Your task to perform on an android device: Open ESPN.com Image 0: 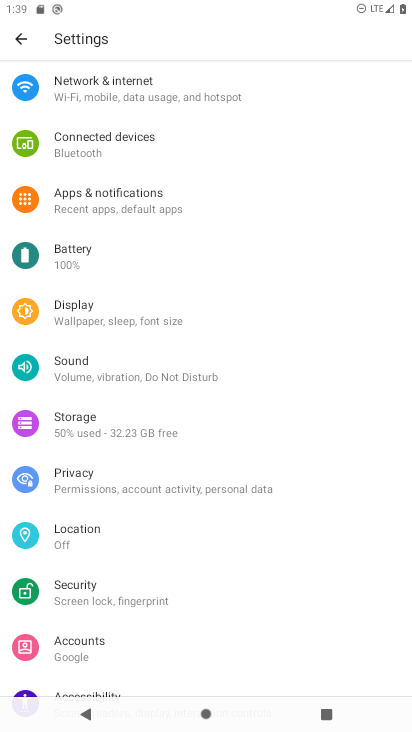
Step 0: press home button
Your task to perform on an android device: Open ESPN.com Image 1: 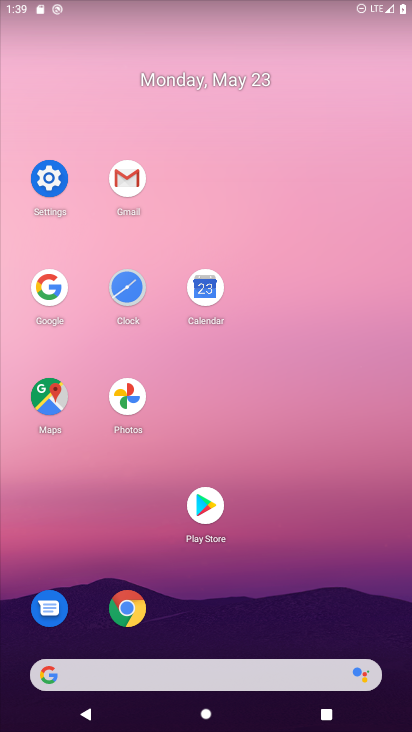
Step 1: click (129, 629)
Your task to perform on an android device: Open ESPN.com Image 2: 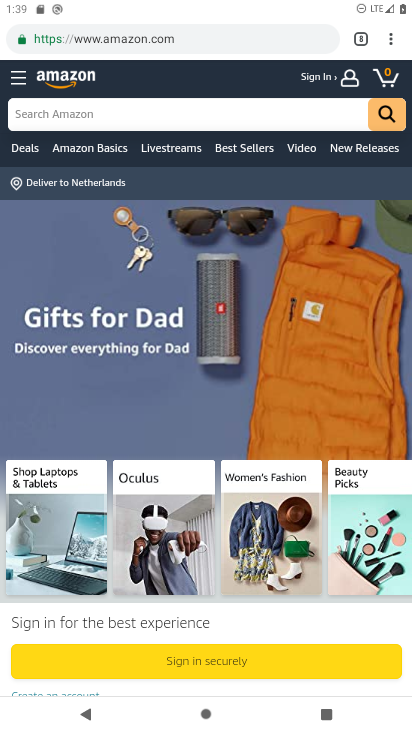
Step 2: click (352, 44)
Your task to perform on an android device: Open ESPN.com Image 3: 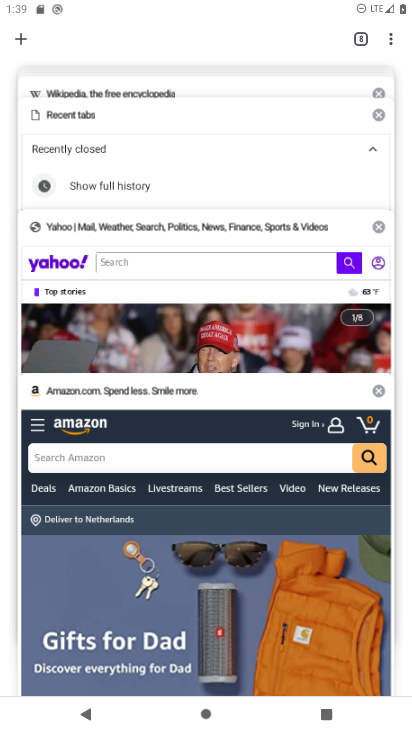
Step 3: drag from (210, 267) to (201, 584)
Your task to perform on an android device: Open ESPN.com Image 4: 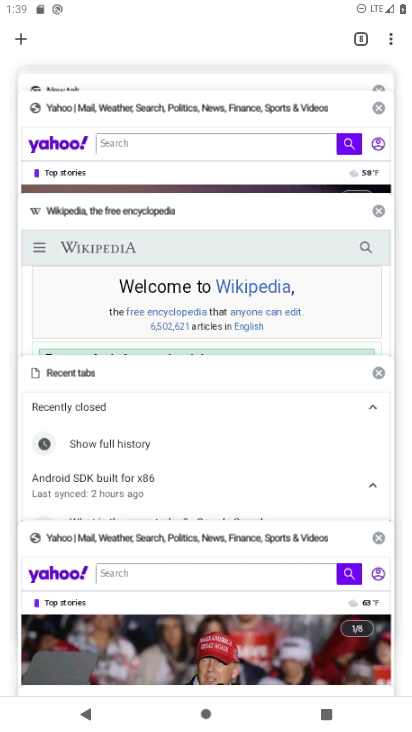
Step 4: drag from (196, 222) to (194, 532)
Your task to perform on an android device: Open ESPN.com Image 5: 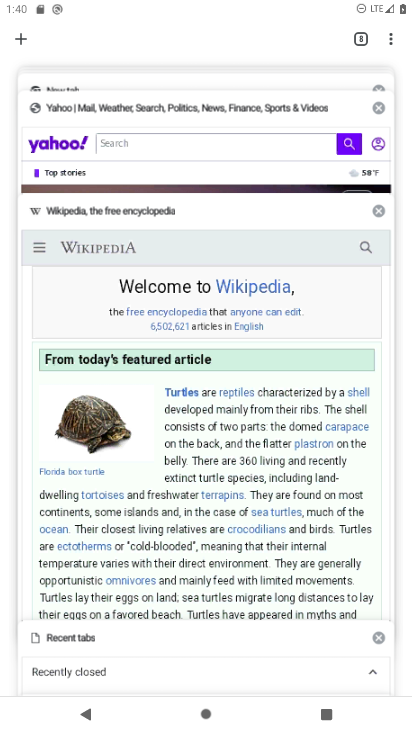
Step 5: click (18, 44)
Your task to perform on an android device: Open ESPN.com Image 6: 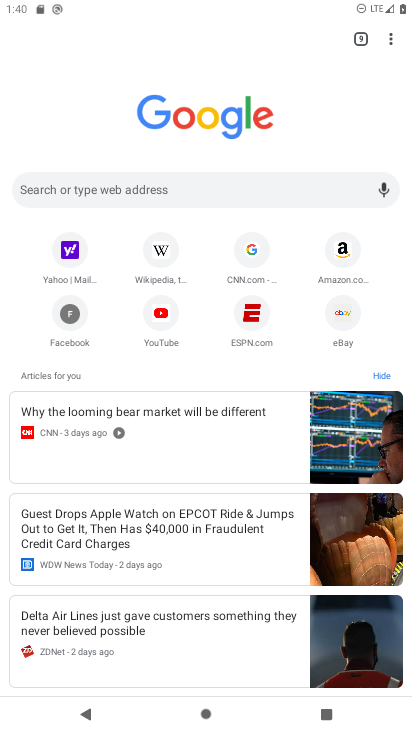
Step 6: click (241, 317)
Your task to perform on an android device: Open ESPN.com Image 7: 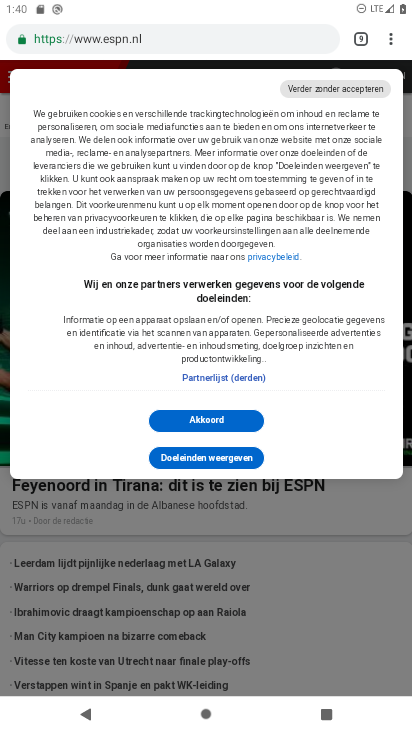
Step 7: task complete